Your task to perform on an android device: turn on airplane mode Image 0: 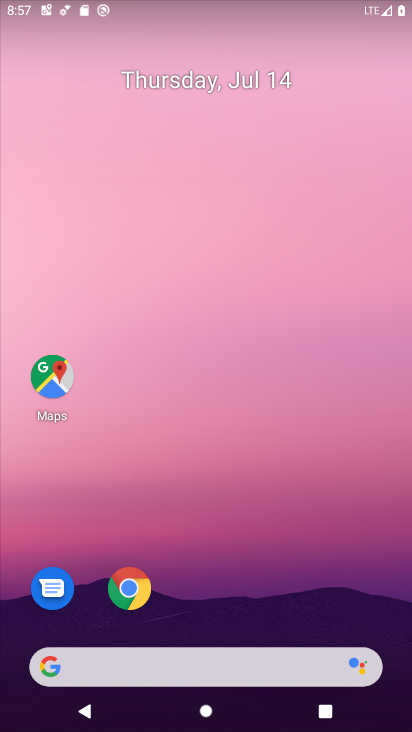
Step 0: drag from (284, 586) to (316, 66)
Your task to perform on an android device: turn on airplane mode Image 1: 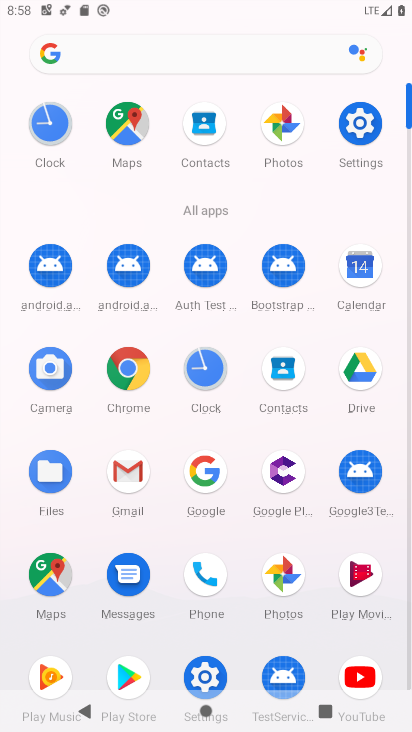
Step 1: drag from (265, 6) to (265, 409)
Your task to perform on an android device: turn on airplane mode Image 2: 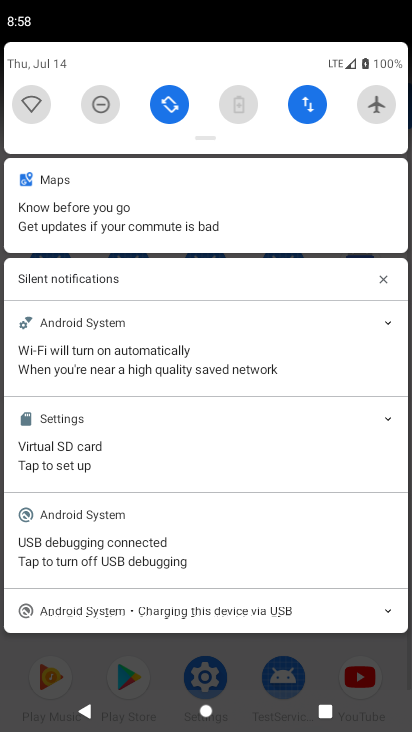
Step 2: click (369, 100)
Your task to perform on an android device: turn on airplane mode Image 3: 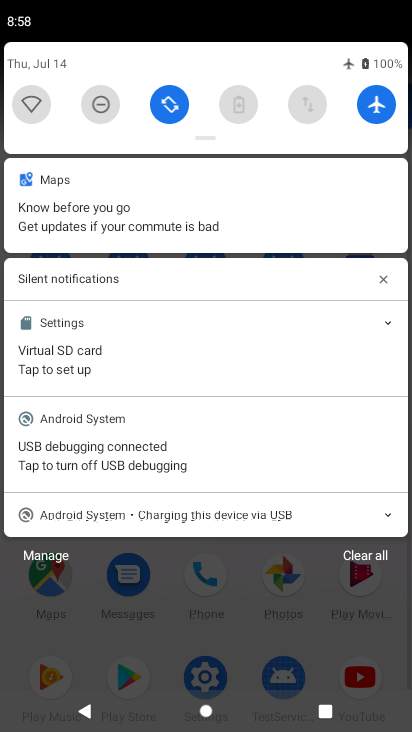
Step 3: task complete